Your task to perform on an android device: Open Google Image 0: 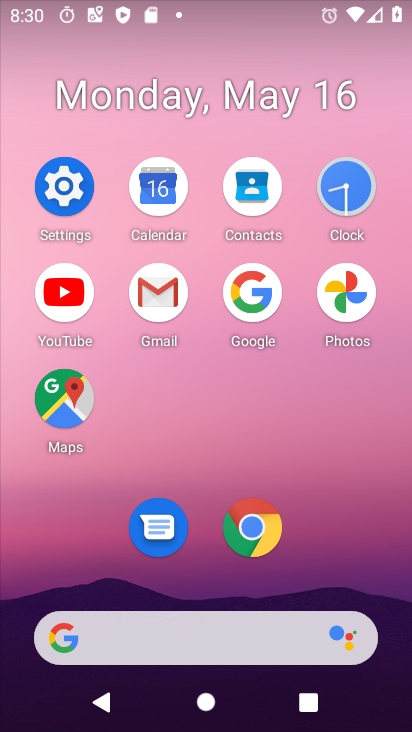
Step 0: click (258, 289)
Your task to perform on an android device: Open Google Image 1: 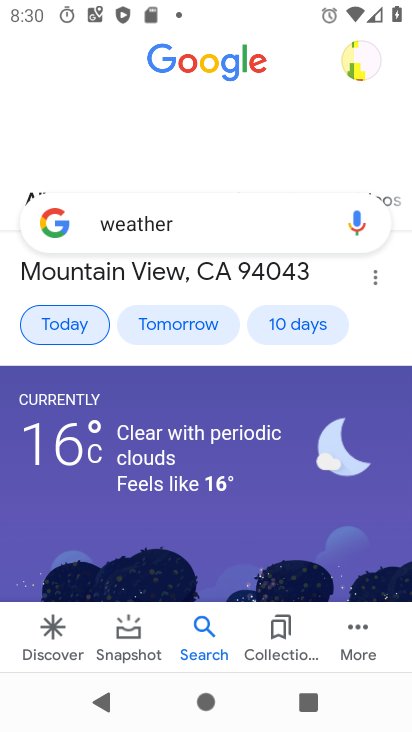
Step 1: task complete